Your task to perform on an android device: add a contact in the contacts app Image 0: 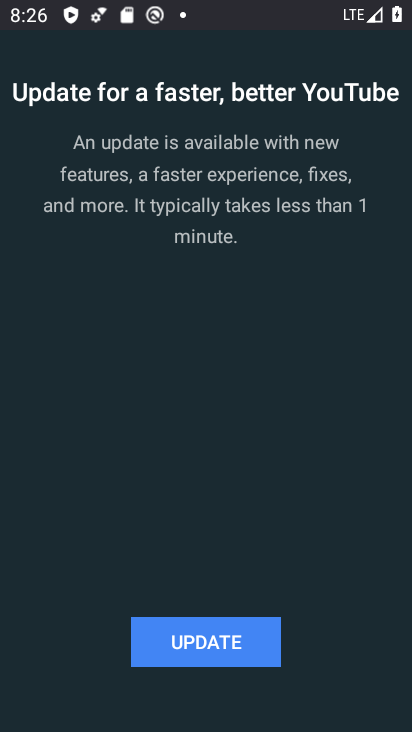
Step 0: press home button
Your task to perform on an android device: add a contact in the contacts app Image 1: 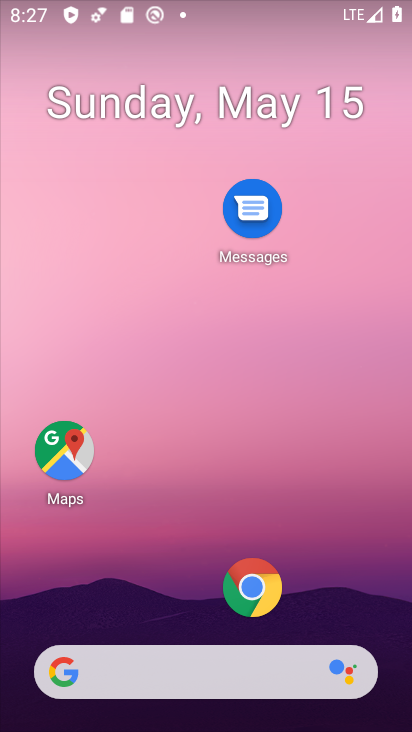
Step 1: drag from (146, 625) to (189, 168)
Your task to perform on an android device: add a contact in the contacts app Image 2: 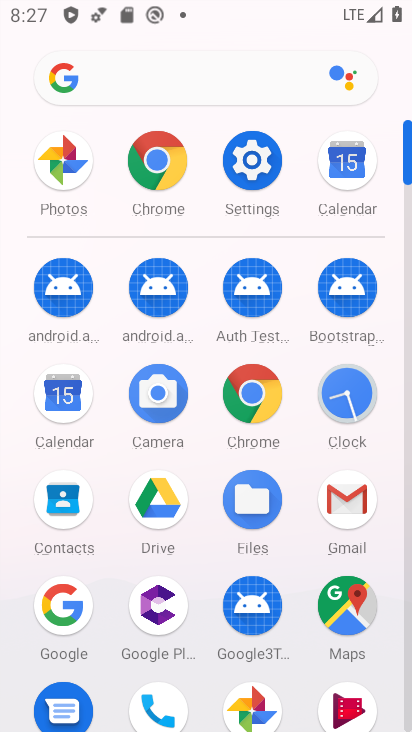
Step 2: click (61, 501)
Your task to perform on an android device: add a contact in the contacts app Image 3: 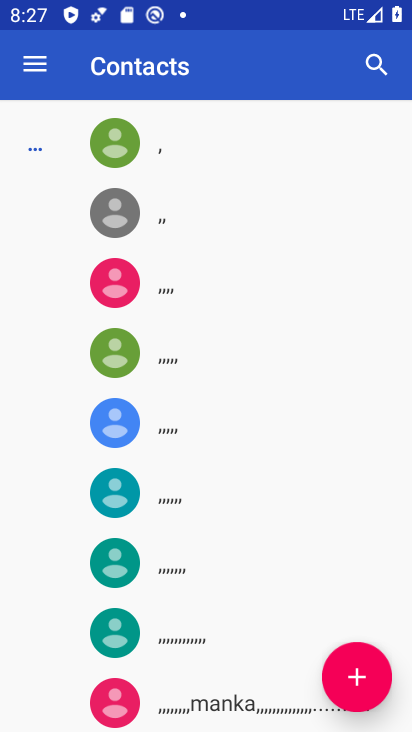
Step 3: click (364, 656)
Your task to perform on an android device: add a contact in the contacts app Image 4: 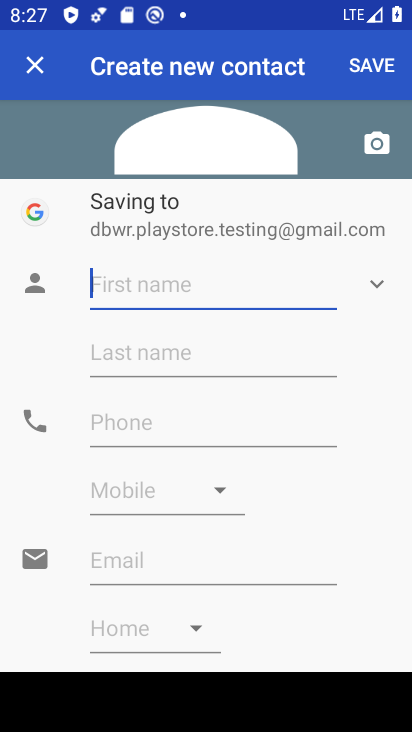
Step 4: type "vnvn"
Your task to perform on an android device: add a contact in the contacts app Image 5: 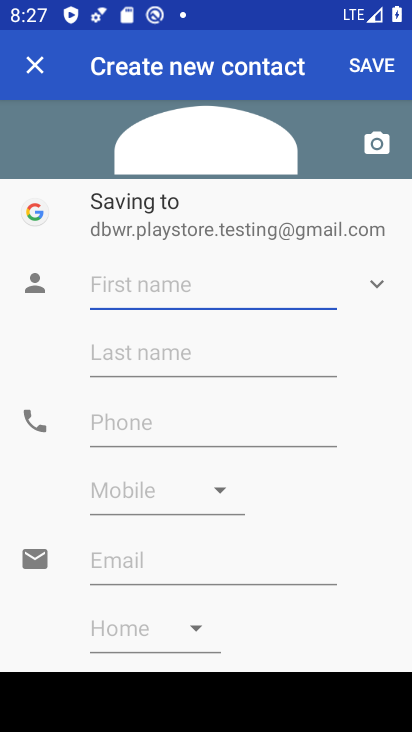
Step 5: click (151, 358)
Your task to perform on an android device: add a contact in the contacts app Image 6: 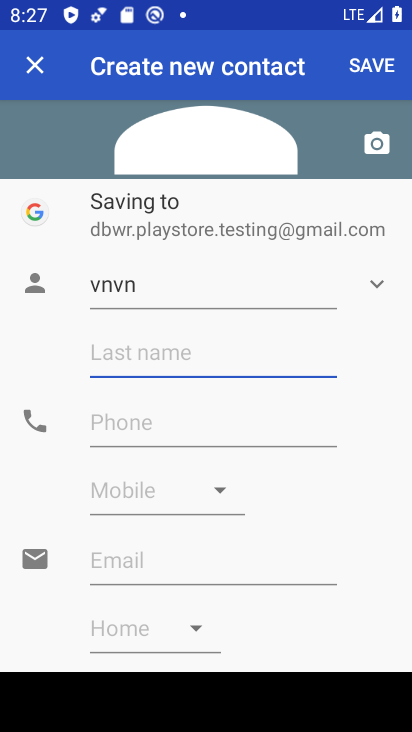
Step 6: type "nn"
Your task to perform on an android device: add a contact in the contacts app Image 7: 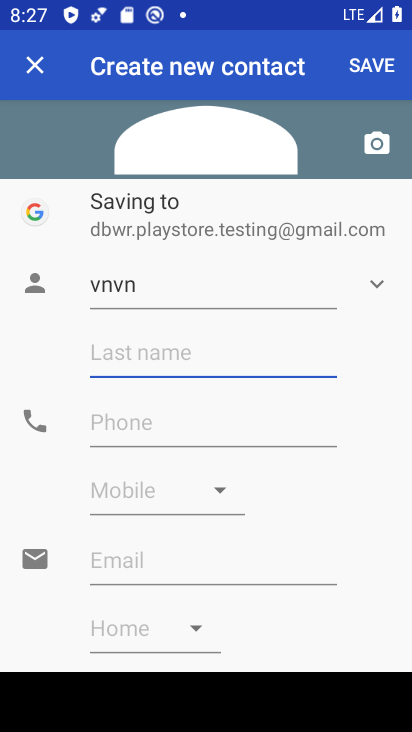
Step 7: click (100, 416)
Your task to perform on an android device: add a contact in the contacts app Image 8: 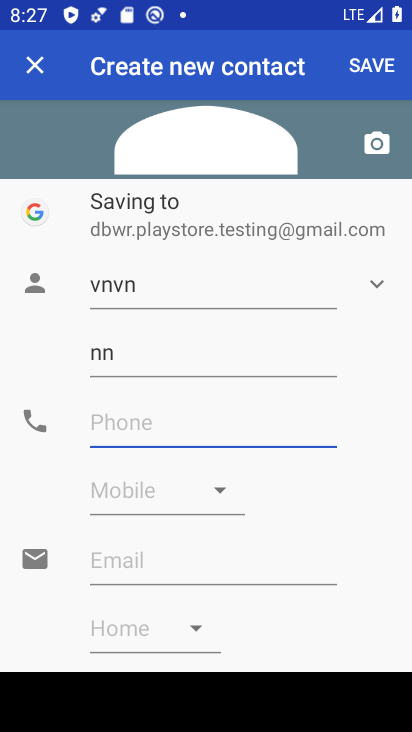
Step 8: type "56676"
Your task to perform on an android device: add a contact in the contacts app Image 9: 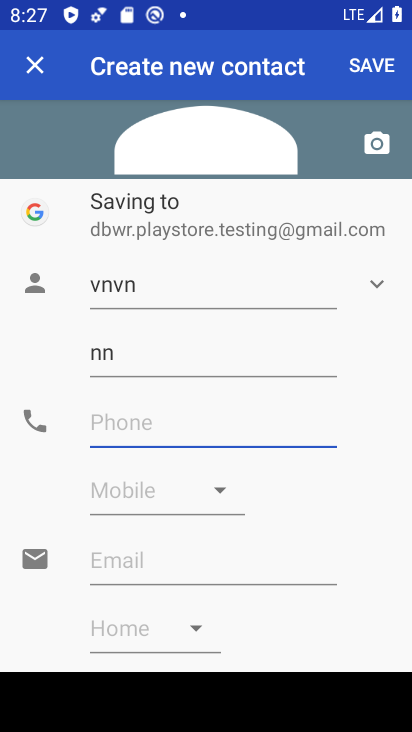
Step 9: click (162, 477)
Your task to perform on an android device: add a contact in the contacts app Image 10: 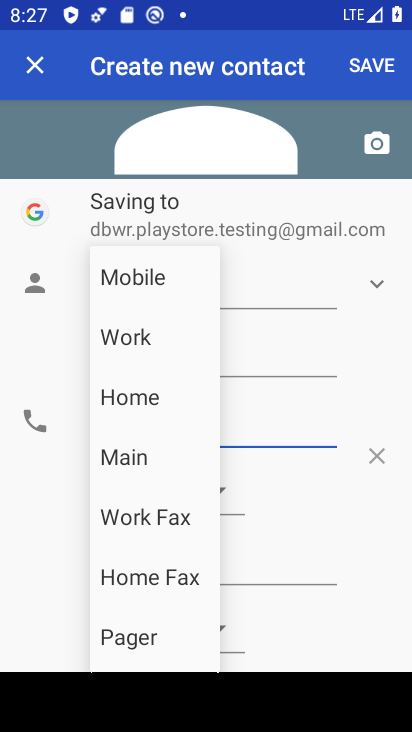
Step 10: click (374, 69)
Your task to perform on an android device: add a contact in the contacts app Image 11: 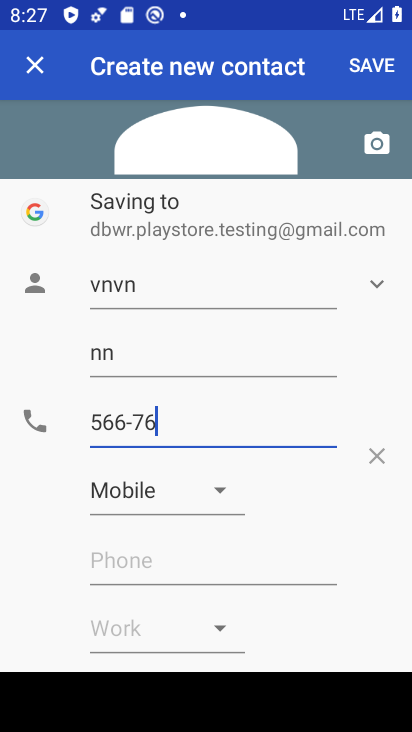
Step 11: click (375, 72)
Your task to perform on an android device: add a contact in the contacts app Image 12: 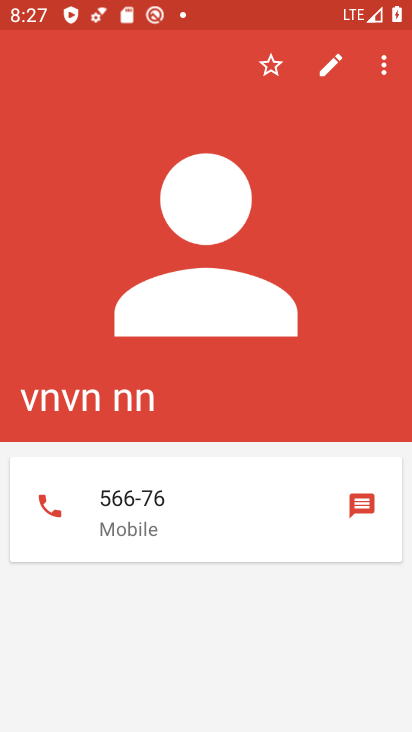
Step 12: task complete